Your task to perform on an android device: Open Android settings Image 0: 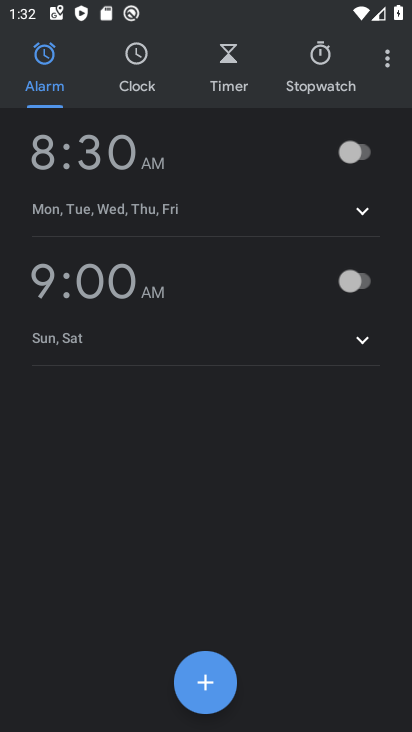
Step 0: press home button
Your task to perform on an android device: Open Android settings Image 1: 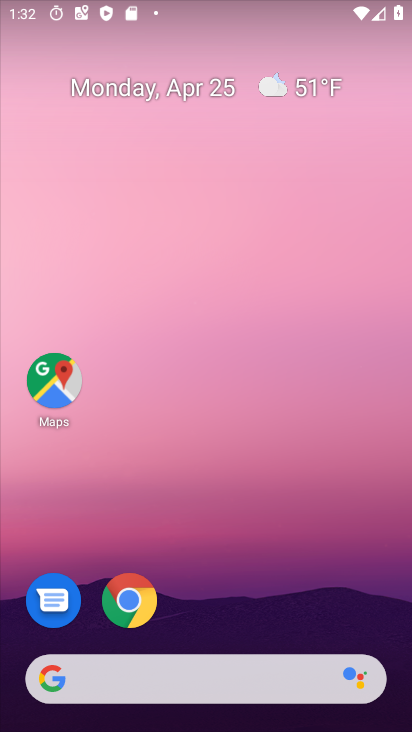
Step 1: drag from (153, 670) to (339, 93)
Your task to perform on an android device: Open Android settings Image 2: 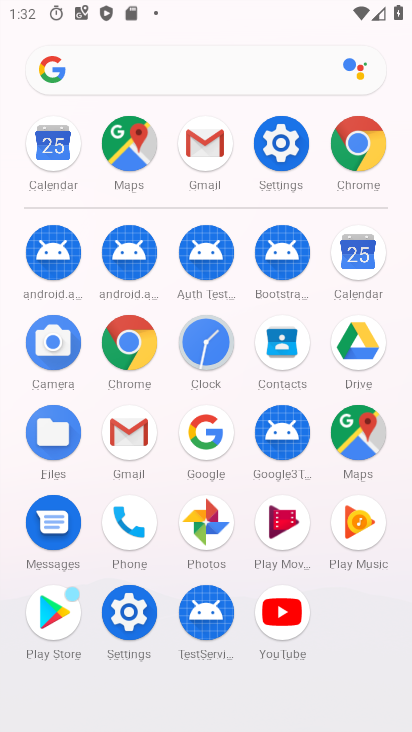
Step 2: click (279, 144)
Your task to perform on an android device: Open Android settings Image 3: 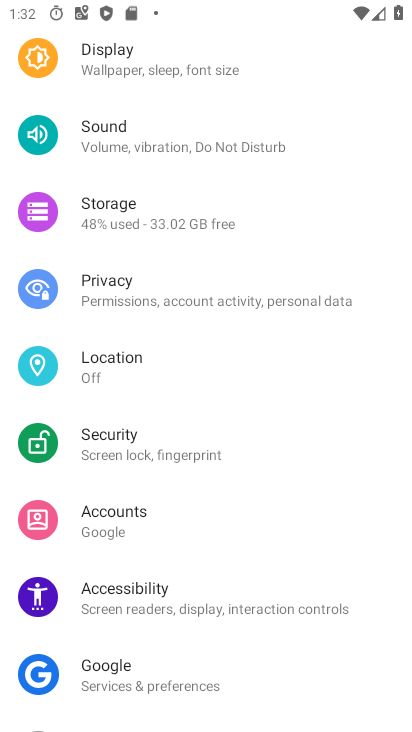
Step 3: task complete